Your task to perform on an android device: open app "Facebook" Image 0: 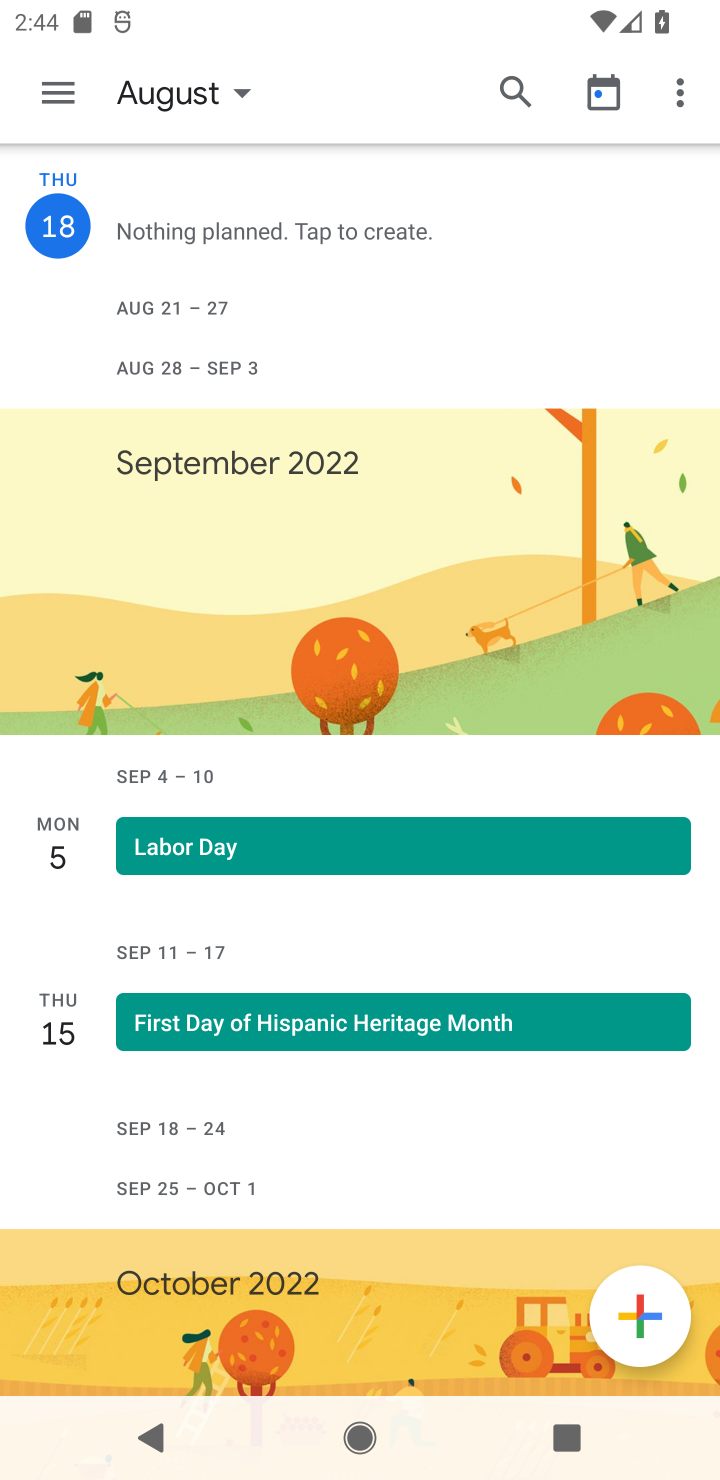
Step 0: press home button
Your task to perform on an android device: open app "Facebook" Image 1: 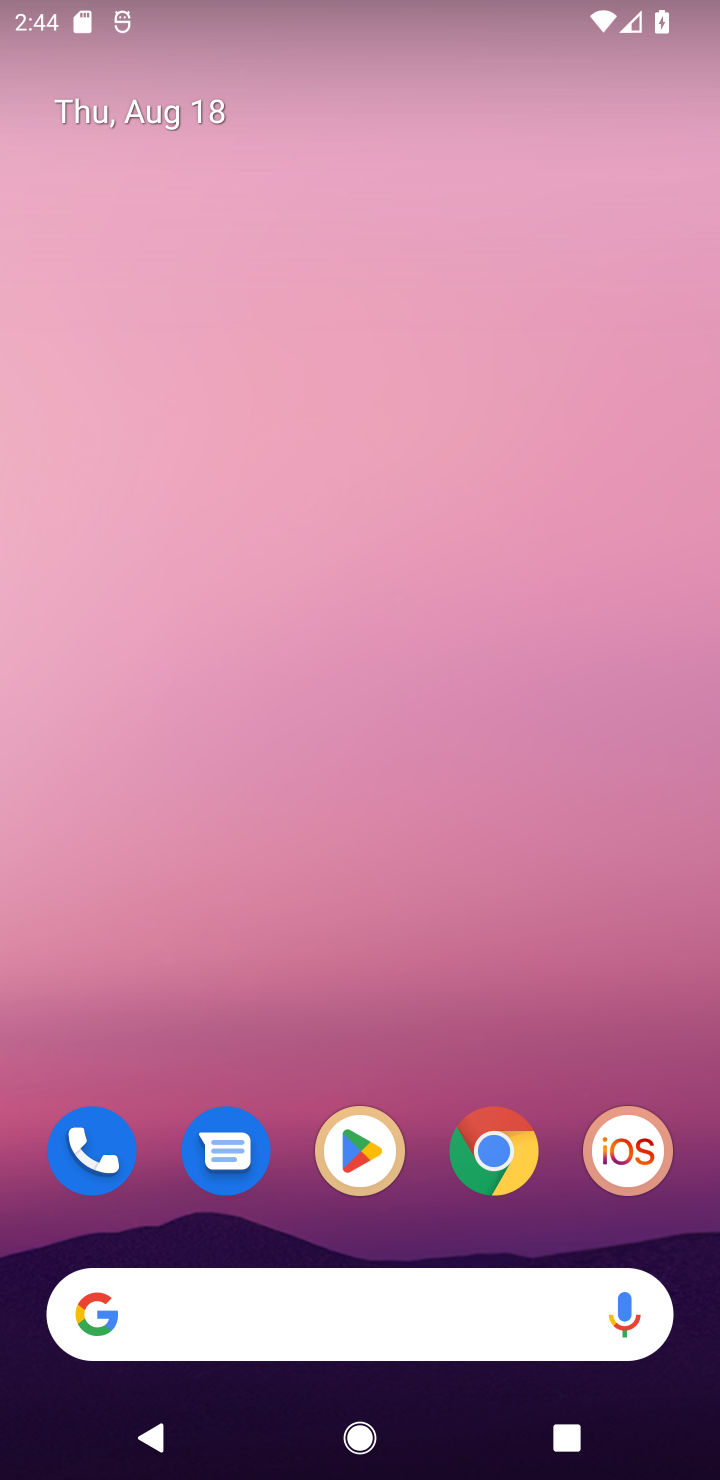
Step 1: click (368, 1198)
Your task to perform on an android device: open app "Facebook" Image 2: 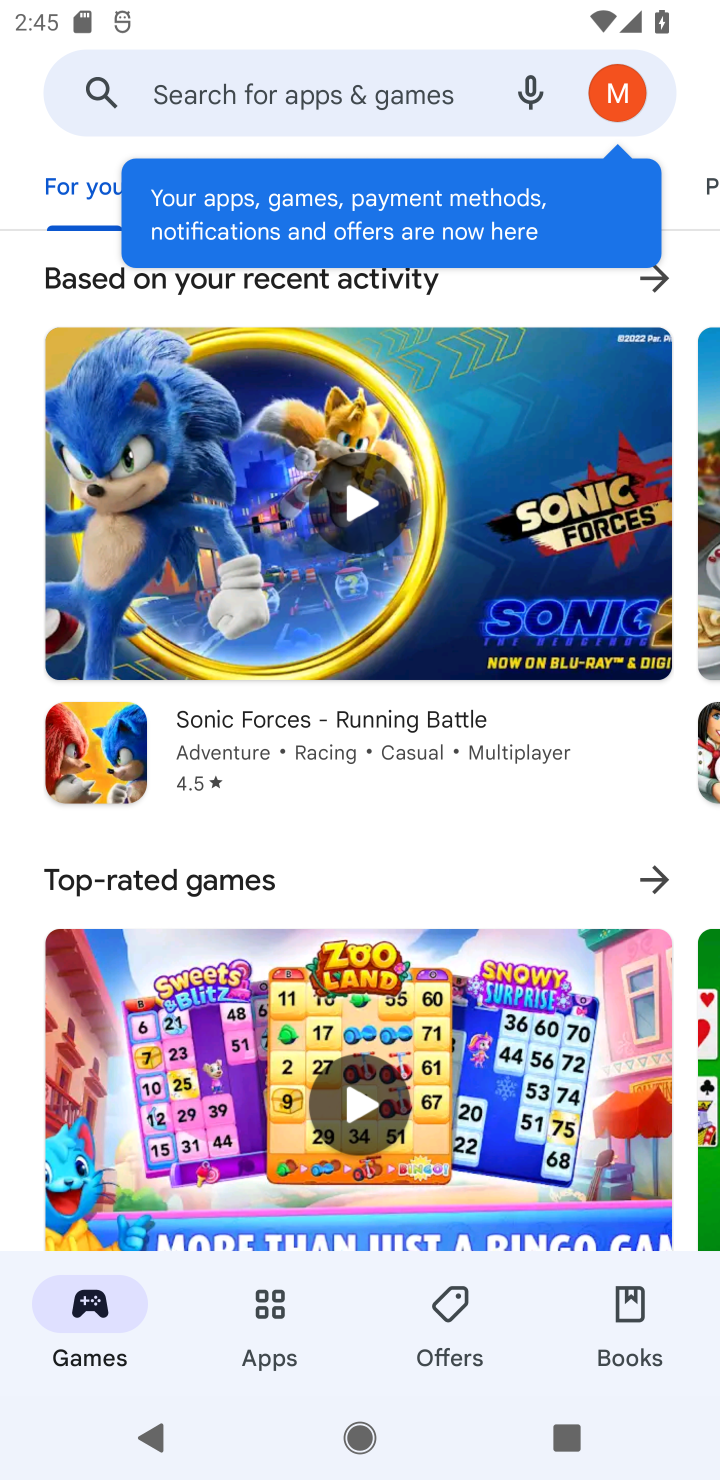
Step 2: click (425, 107)
Your task to perform on an android device: open app "Facebook" Image 3: 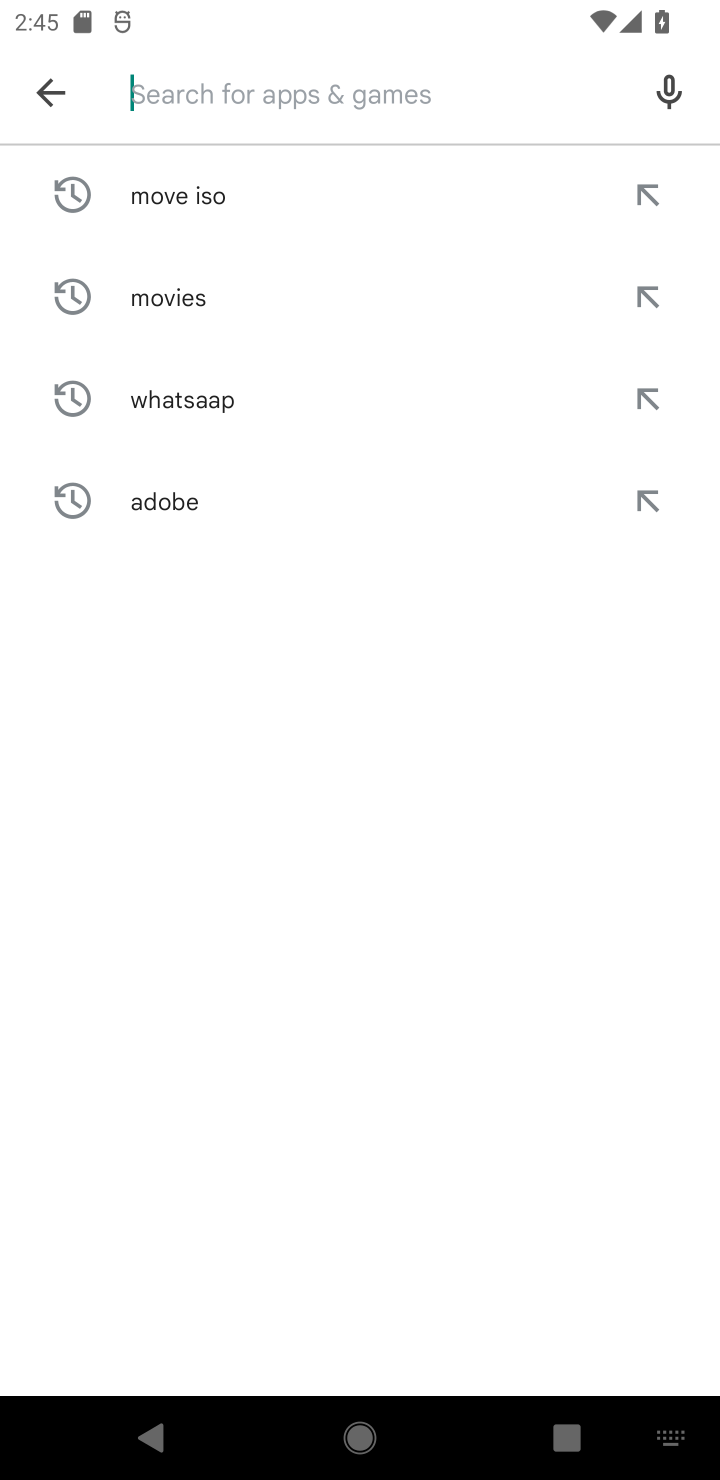
Step 3: type "facebook.com"
Your task to perform on an android device: open app "Facebook" Image 4: 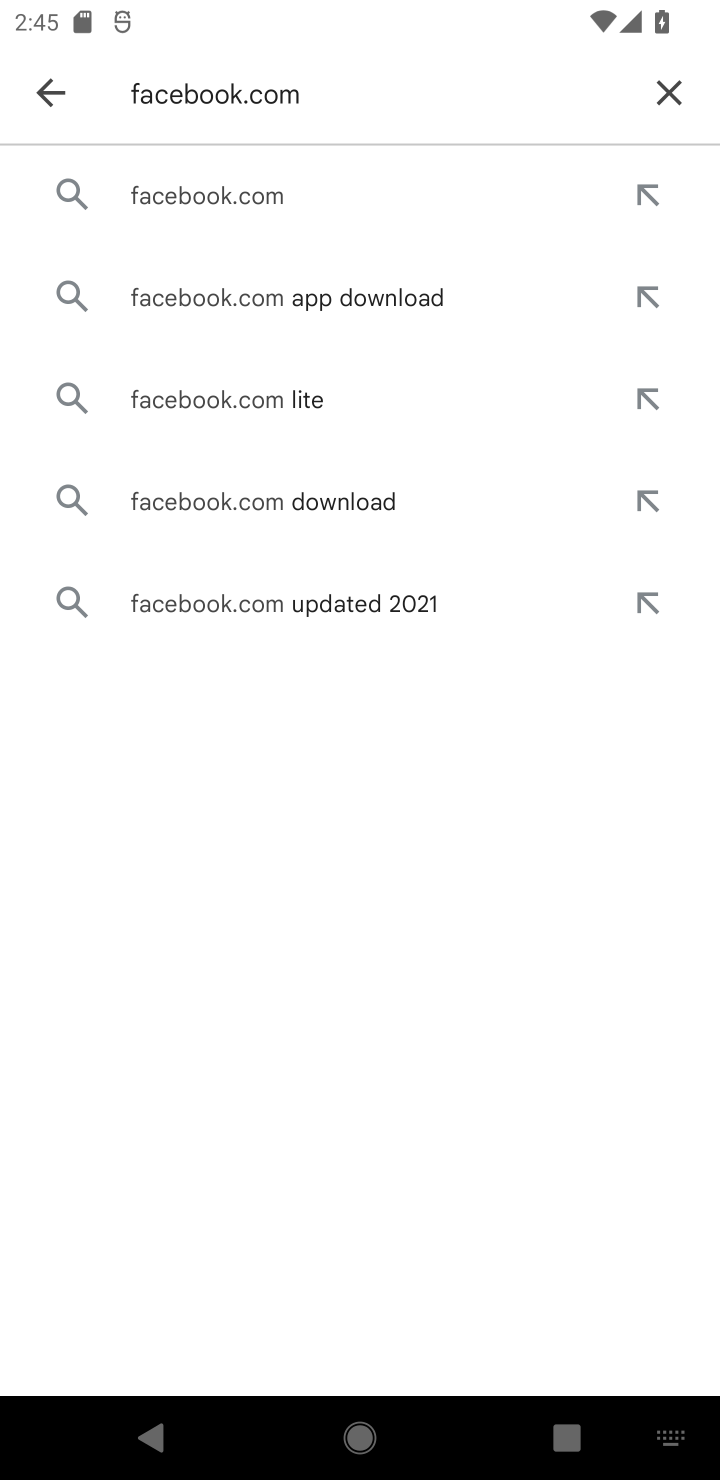
Step 4: click (170, 172)
Your task to perform on an android device: open app "Facebook" Image 5: 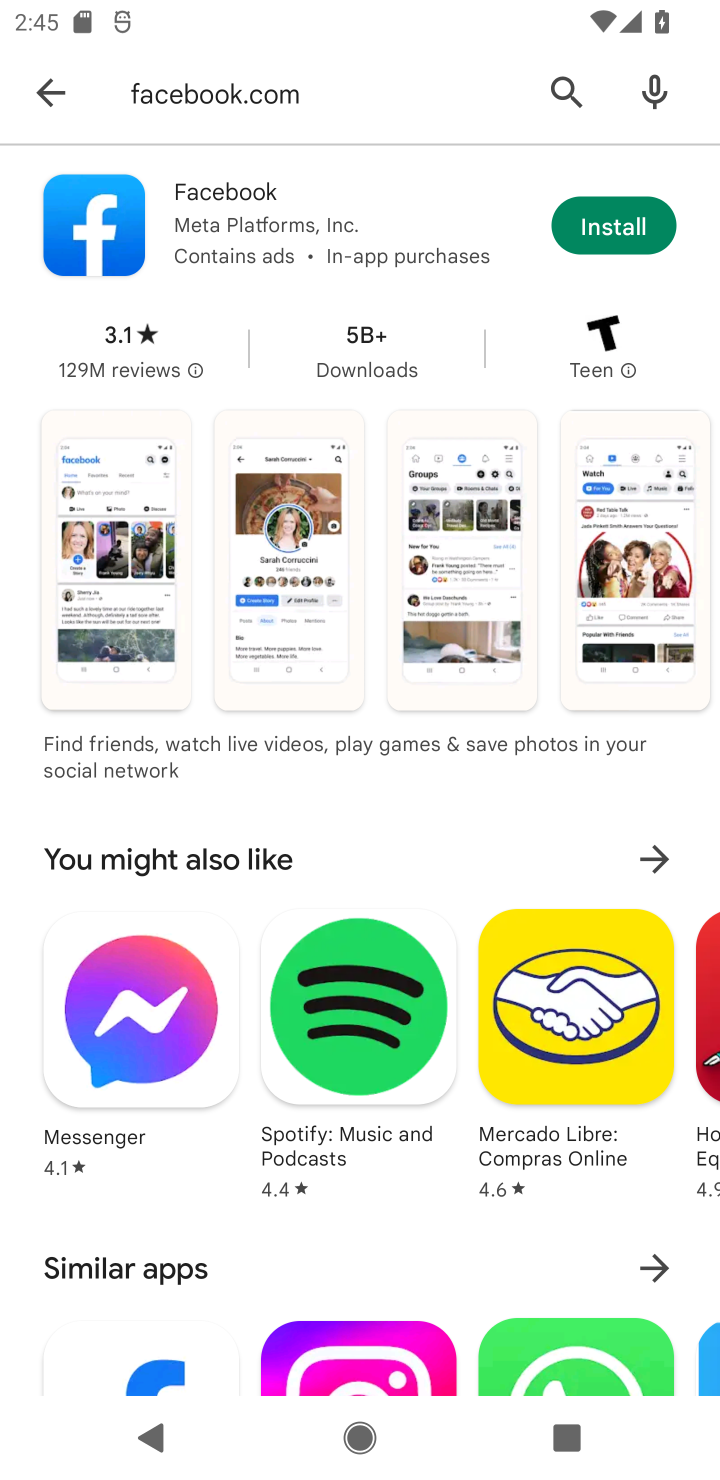
Step 5: click (562, 227)
Your task to perform on an android device: open app "Facebook" Image 6: 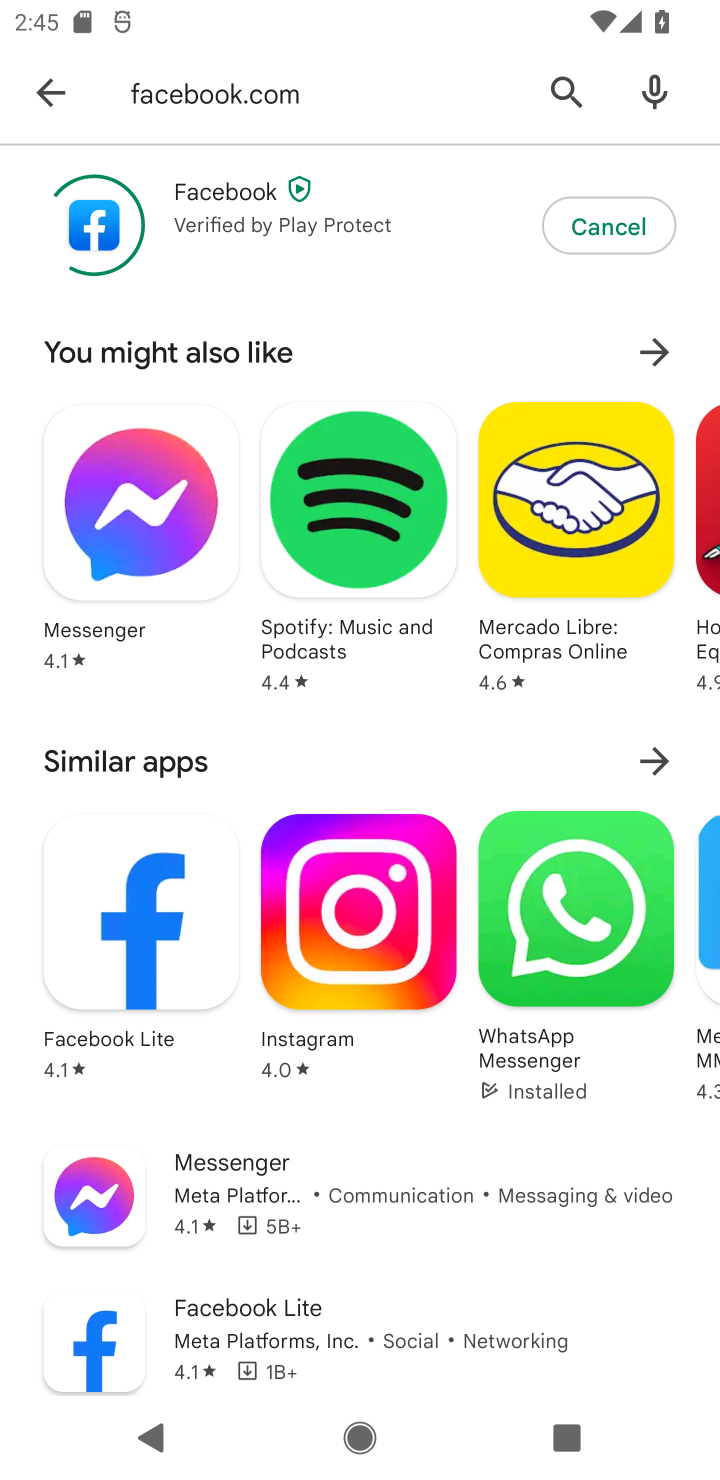
Step 6: task complete